Your task to perform on an android device: open sync settings in chrome Image 0: 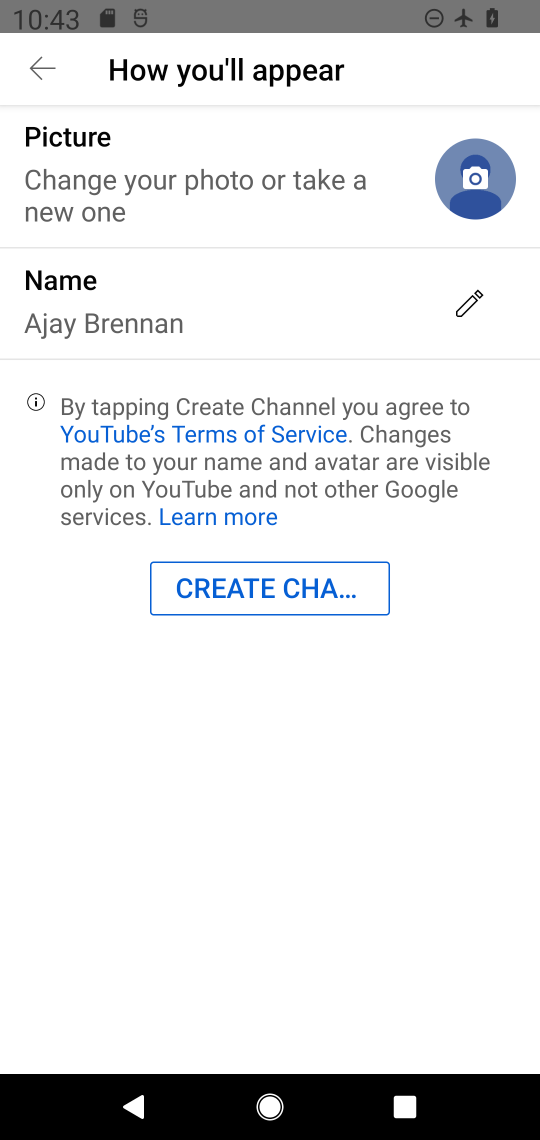
Step 0: press home button
Your task to perform on an android device: open sync settings in chrome Image 1: 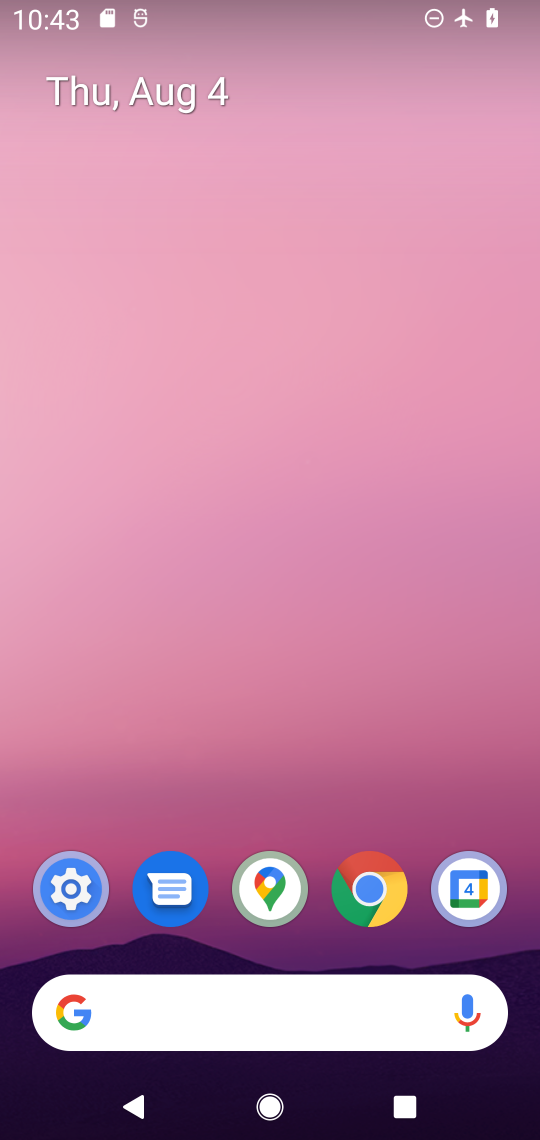
Step 1: drag from (394, 802) to (388, 285)
Your task to perform on an android device: open sync settings in chrome Image 2: 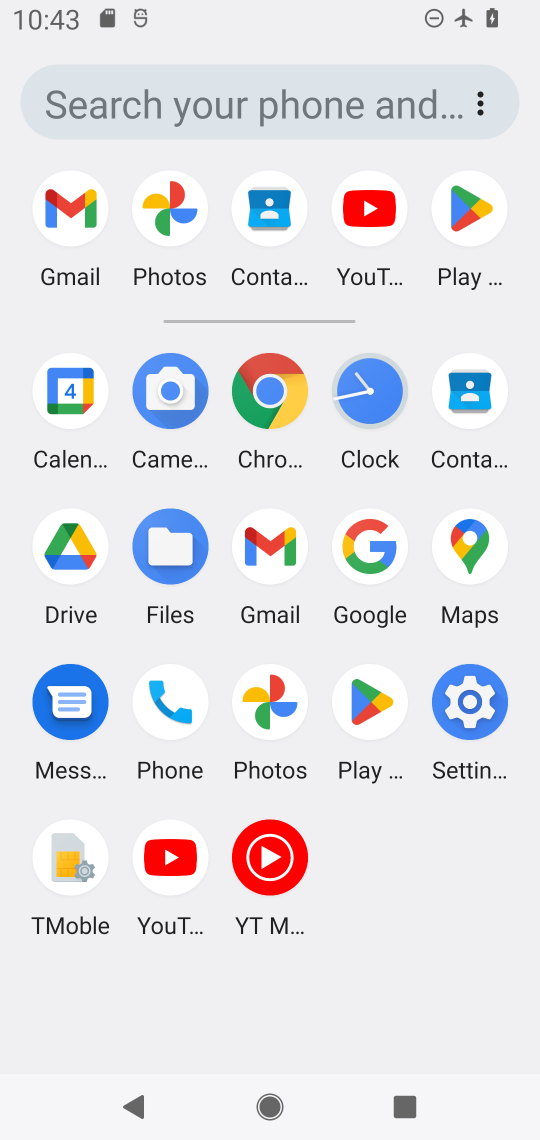
Step 2: click (269, 381)
Your task to perform on an android device: open sync settings in chrome Image 3: 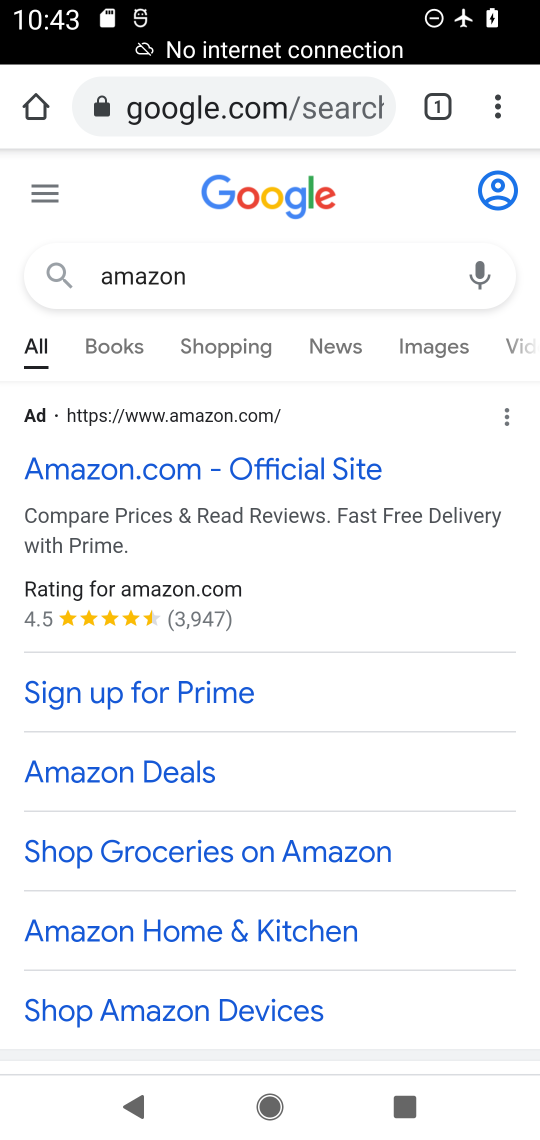
Step 3: click (498, 112)
Your task to perform on an android device: open sync settings in chrome Image 4: 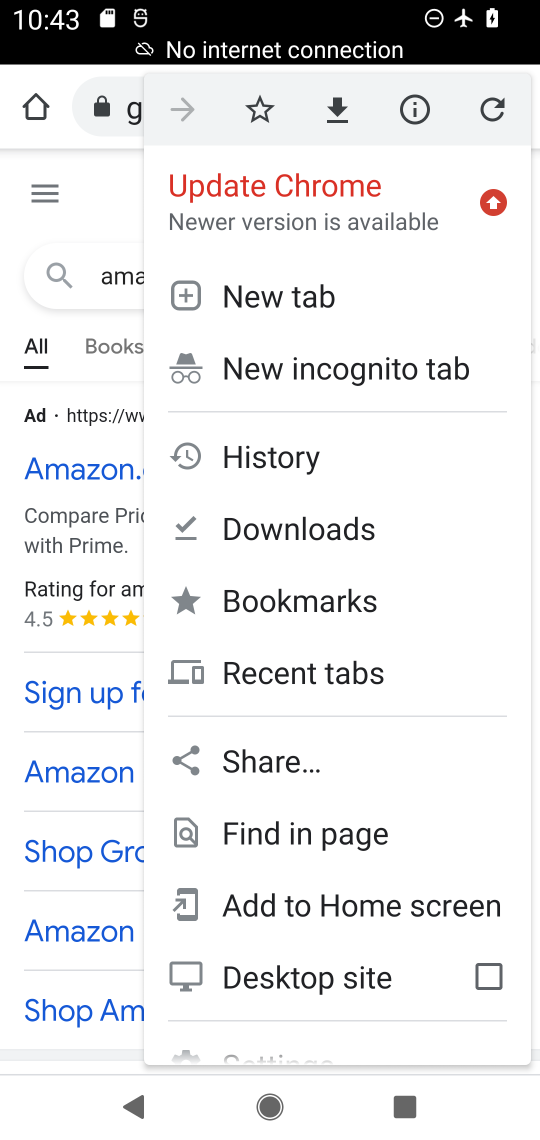
Step 4: click (492, 111)
Your task to perform on an android device: open sync settings in chrome Image 5: 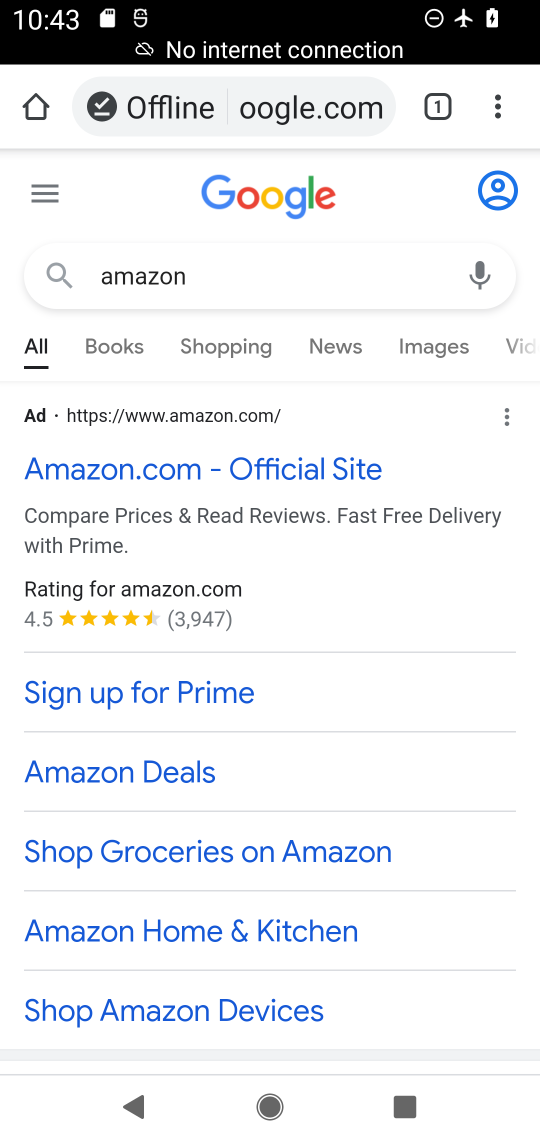
Step 5: click (501, 111)
Your task to perform on an android device: open sync settings in chrome Image 6: 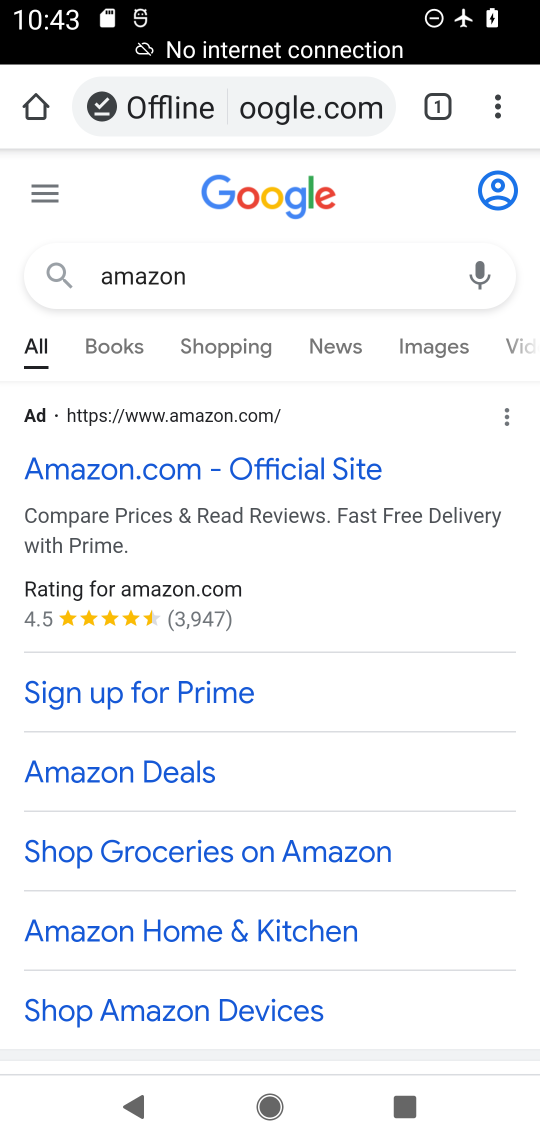
Step 6: click (492, 110)
Your task to perform on an android device: open sync settings in chrome Image 7: 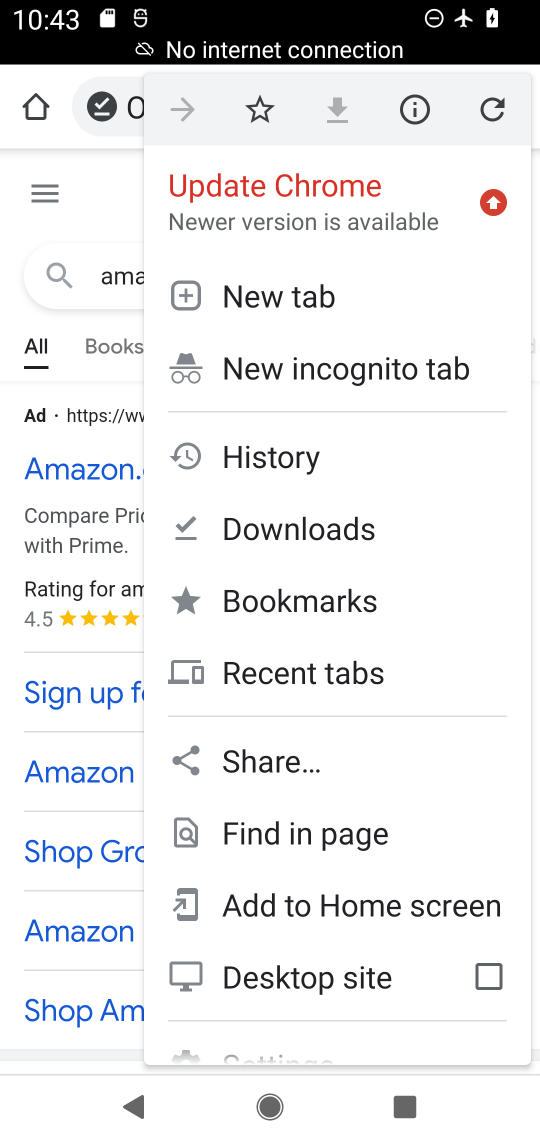
Step 7: drag from (410, 714) to (431, 587)
Your task to perform on an android device: open sync settings in chrome Image 8: 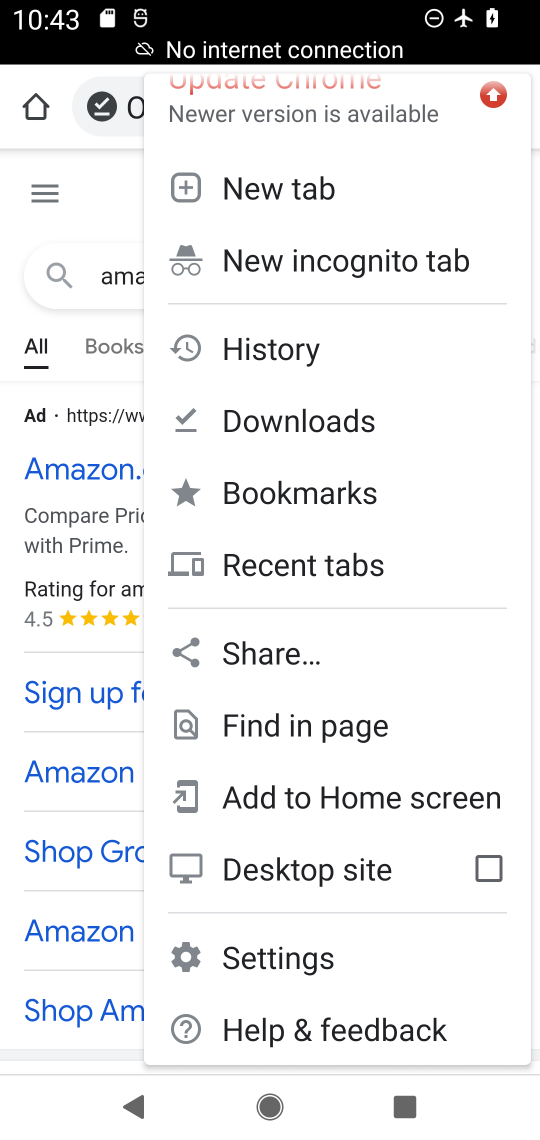
Step 8: click (385, 960)
Your task to perform on an android device: open sync settings in chrome Image 9: 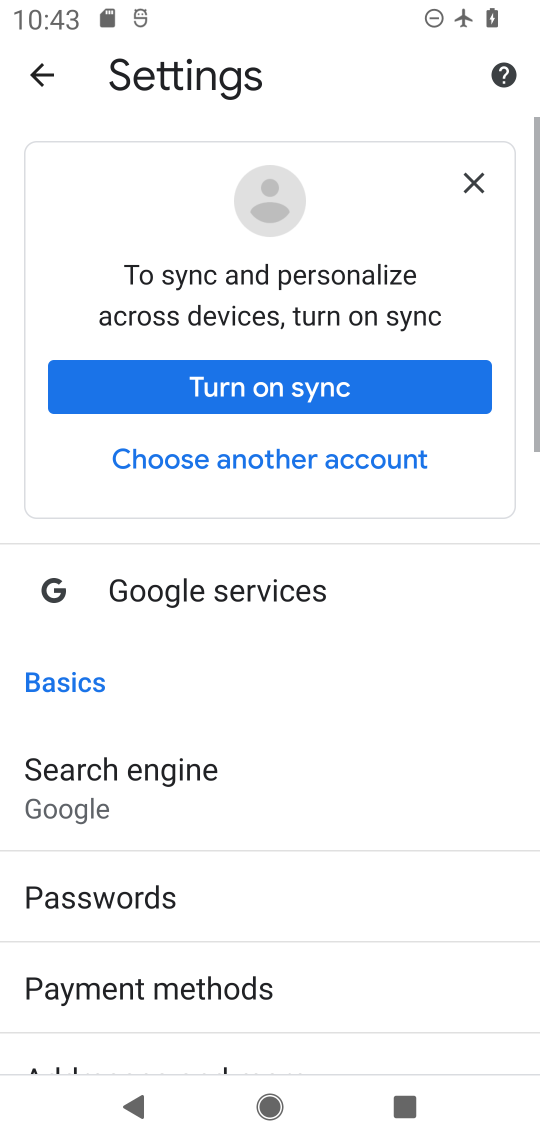
Step 9: drag from (376, 860) to (380, 664)
Your task to perform on an android device: open sync settings in chrome Image 10: 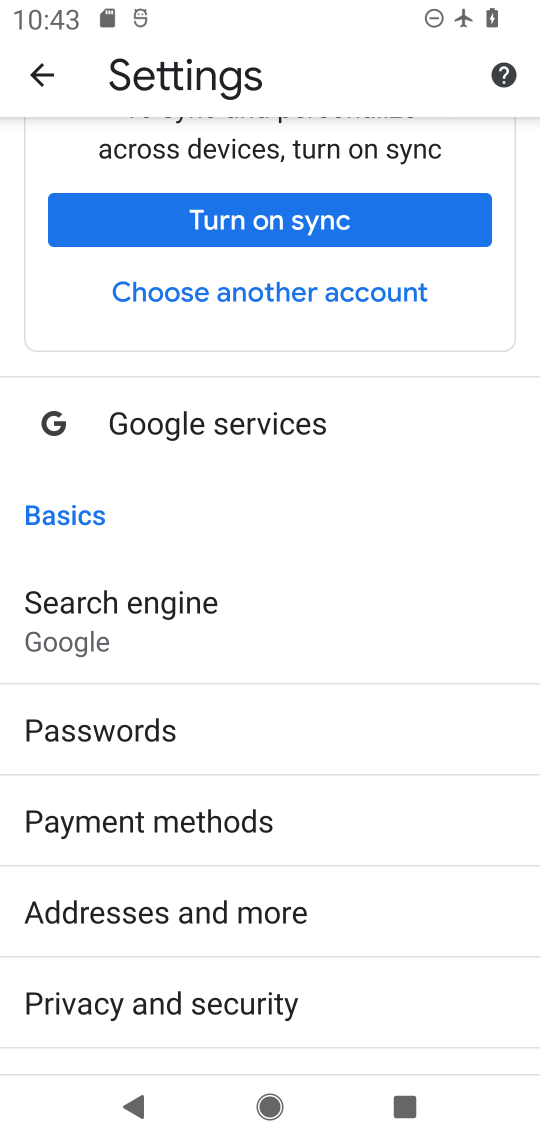
Step 10: drag from (380, 839) to (381, 655)
Your task to perform on an android device: open sync settings in chrome Image 11: 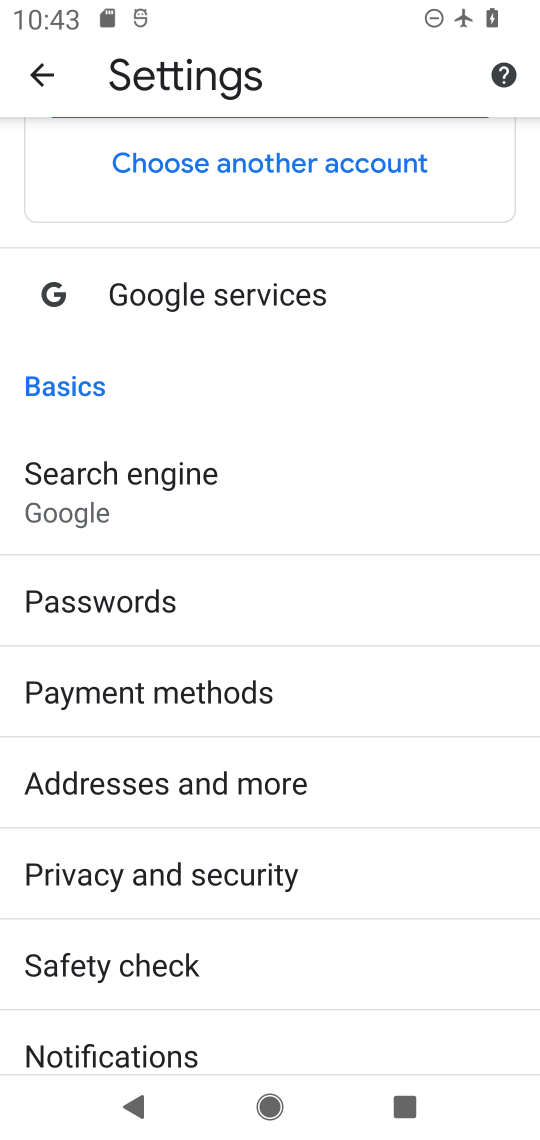
Step 11: drag from (370, 877) to (377, 709)
Your task to perform on an android device: open sync settings in chrome Image 12: 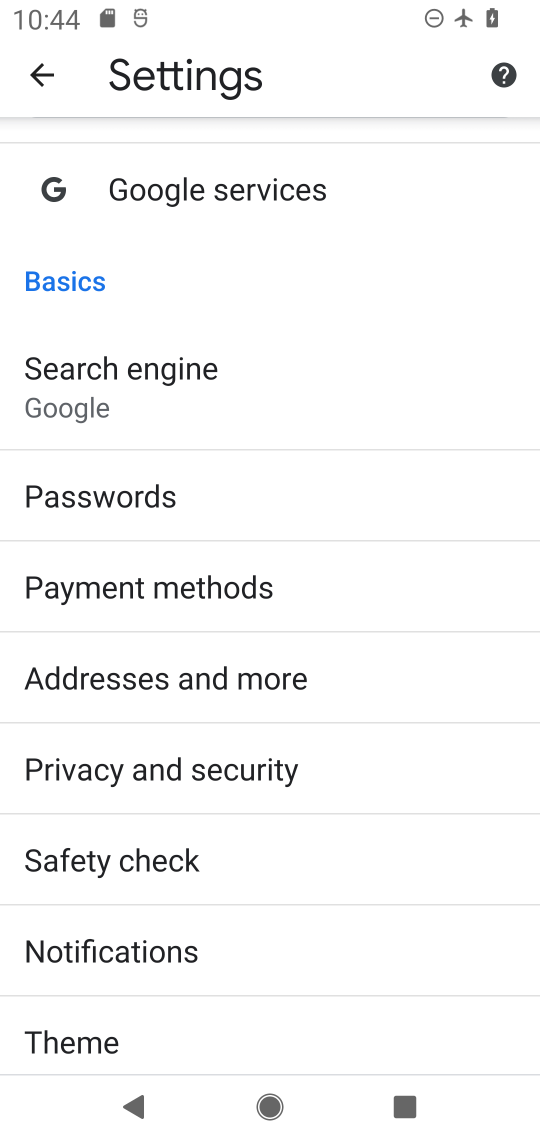
Step 12: drag from (380, 914) to (394, 766)
Your task to perform on an android device: open sync settings in chrome Image 13: 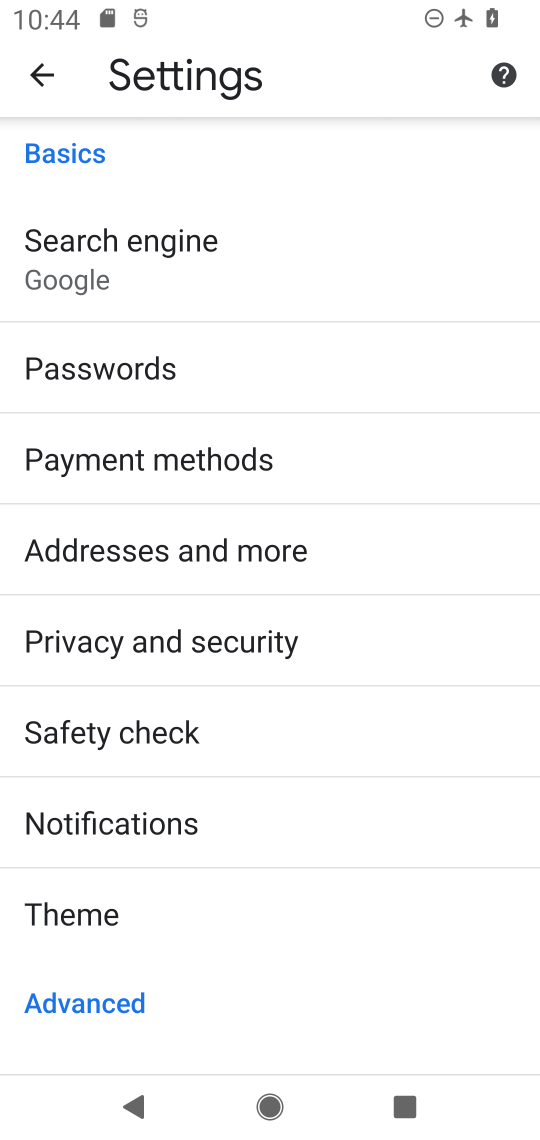
Step 13: drag from (356, 935) to (365, 684)
Your task to perform on an android device: open sync settings in chrome Image 14: 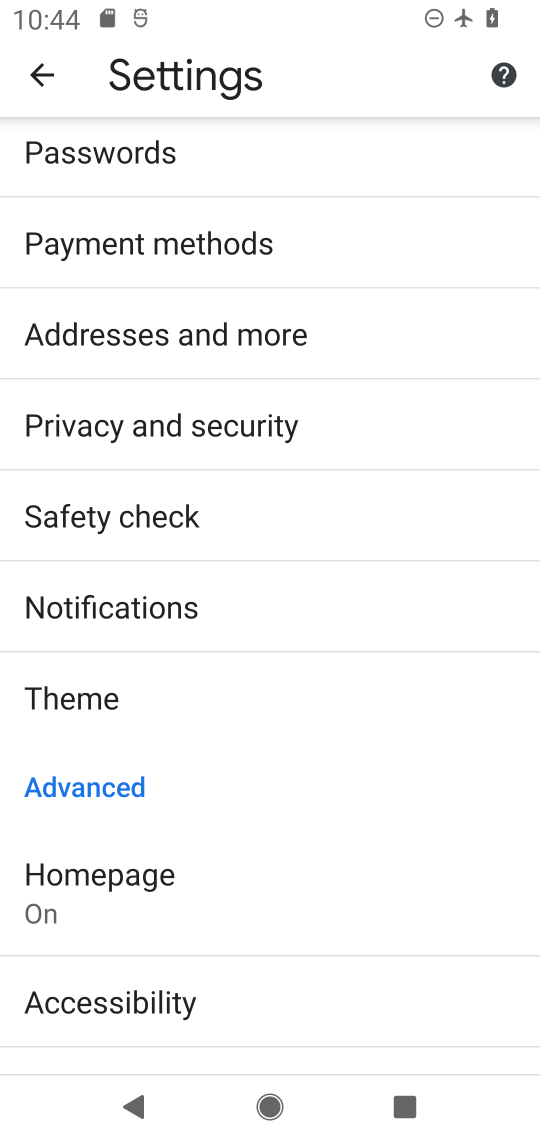
Step 14: drag from (328, 973) to (344, 686)
Your task to perform on an android device: open sync settings in chrome Image 15: 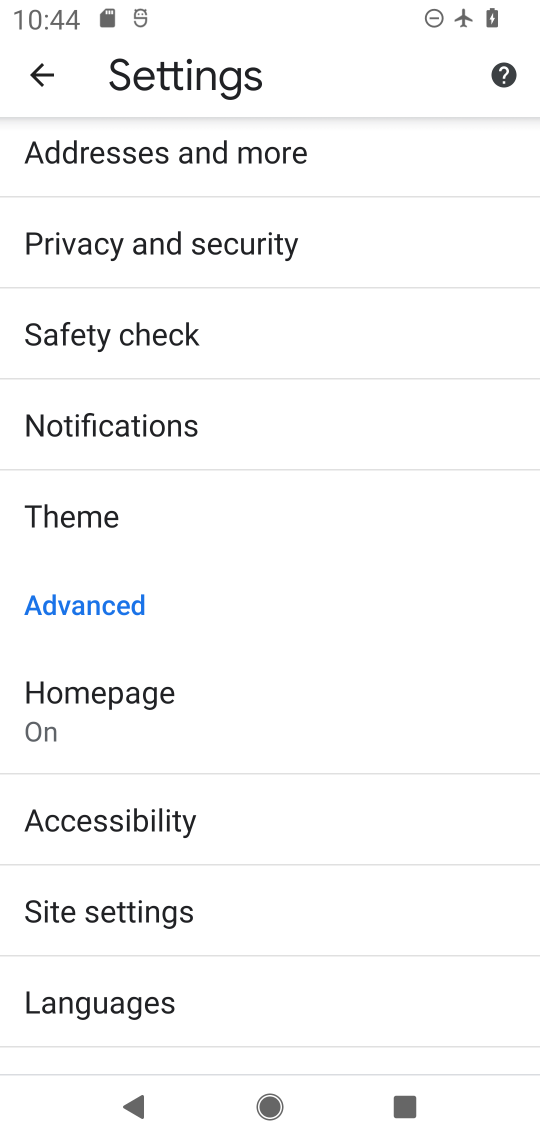
Step 15: click (284, 908)
Your task to perform on an android device: open sync settings in chrome Image 16: 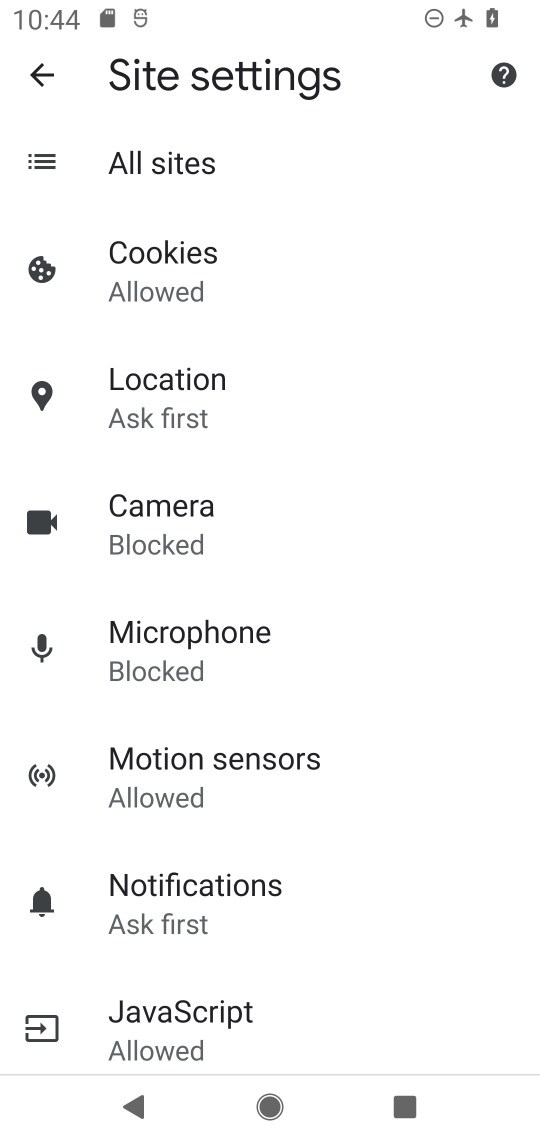
Step 16: drag from (407, 915) to (388, 717)
Your task to perform on an android device: open sync settings in chrome Image 17: 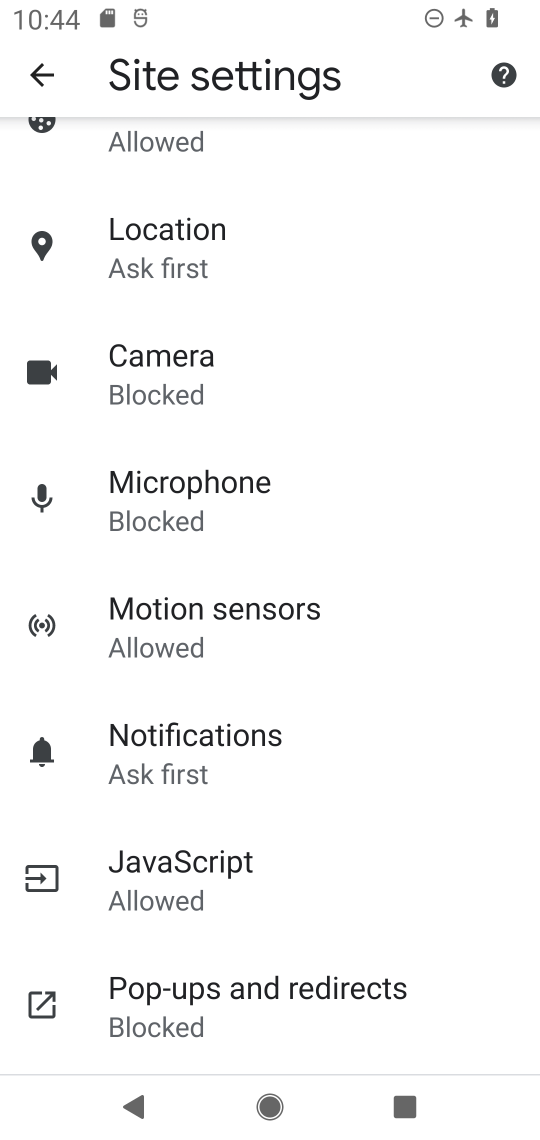
Step 17: drag from (419, 904) to (422, 598)
Your task to perform on an android device: open sync settings in chrome Image 18: 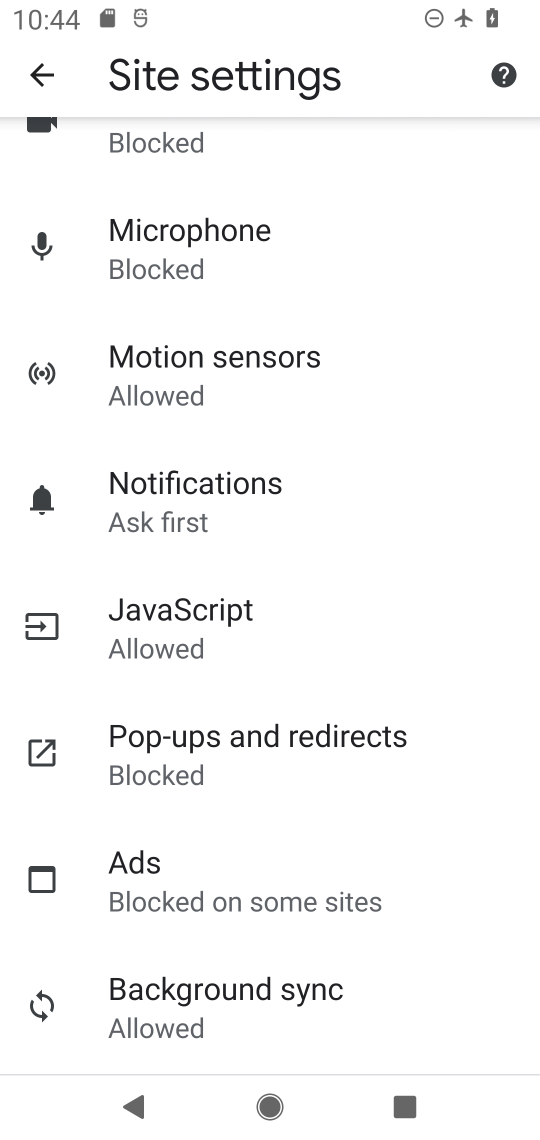
Step 18: drag from (398, 832) to (409, 605)
Your task to perform on an android device: open sync settings in chrome Image 19: 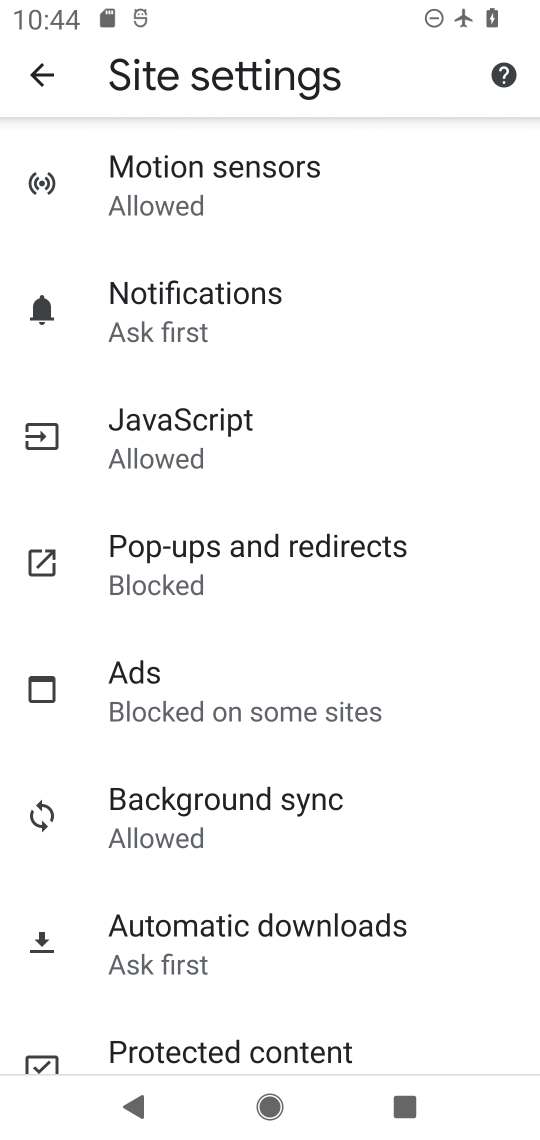
Step 19: drag from (445, 902) to (438, 611)
Your task to perform on an android device: open sync settings in chrome Image 20: 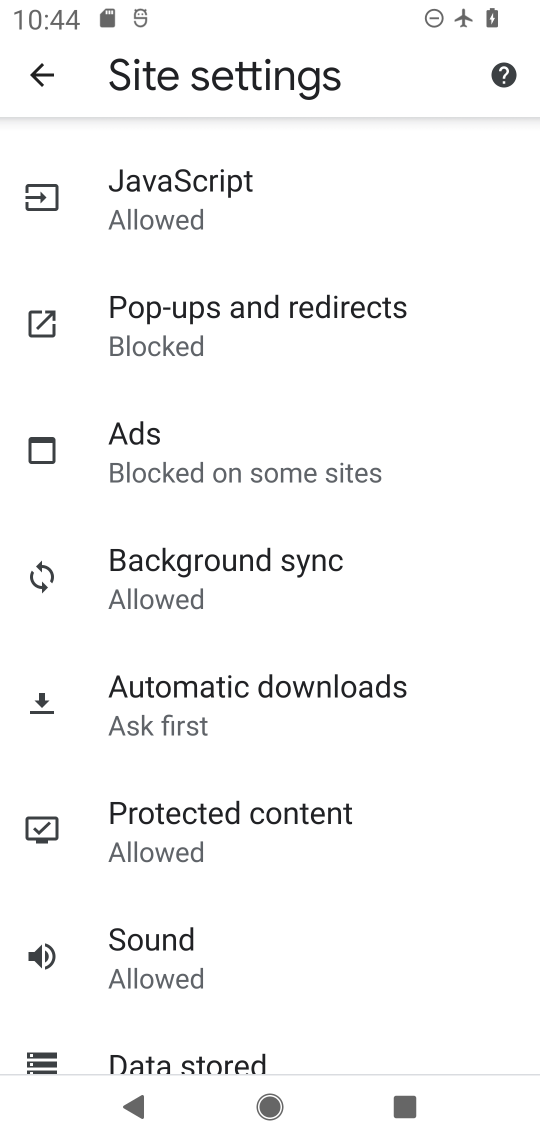
Step 20: click (287, 574)
Your task to perform on an android device: open sync settings in chrome Image 21: 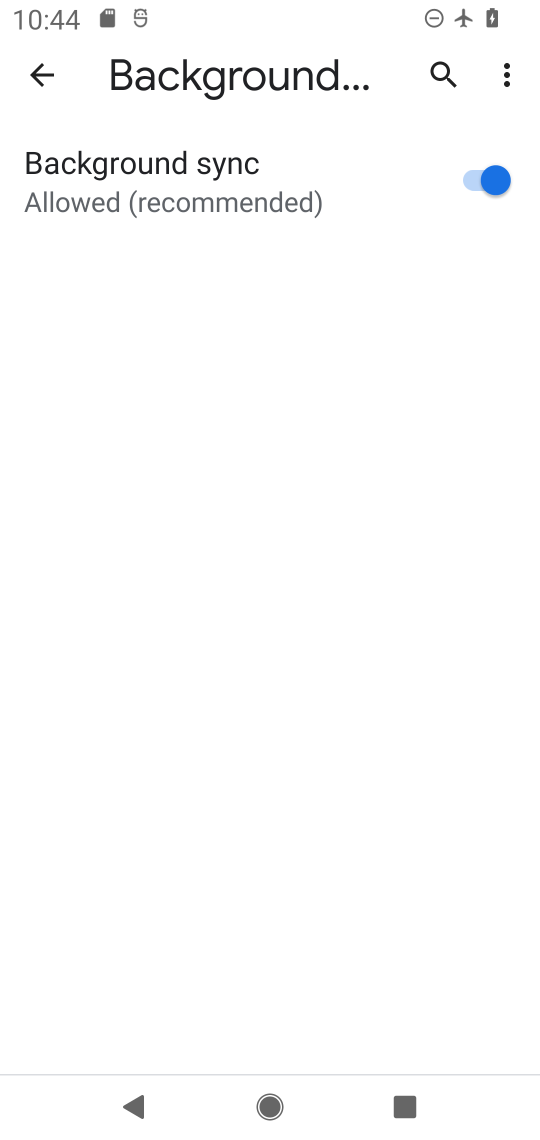
Step 21: task complete